Your task to perform on an android device: change the upload size in google photos Image 0: 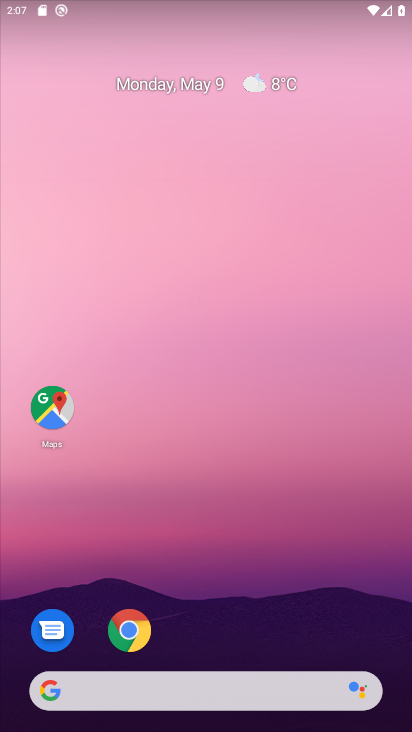
Step 0: click (125, 614)
Your task to perform on an android device: change the upload size in google photos Image 1: 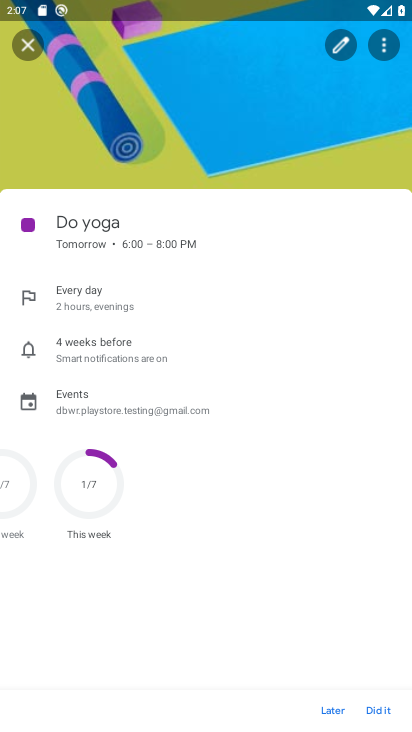
Step 1: press home button
Your task to perform on an android device: change the upload size in google photos Image 2: 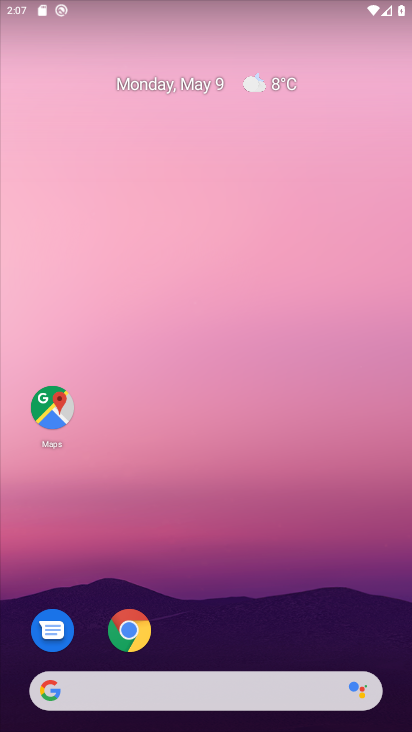
Step 2: drag from (227, 615) to (227, 63)
Your task to perform on an android device: change the upload size in google photos Image 3: 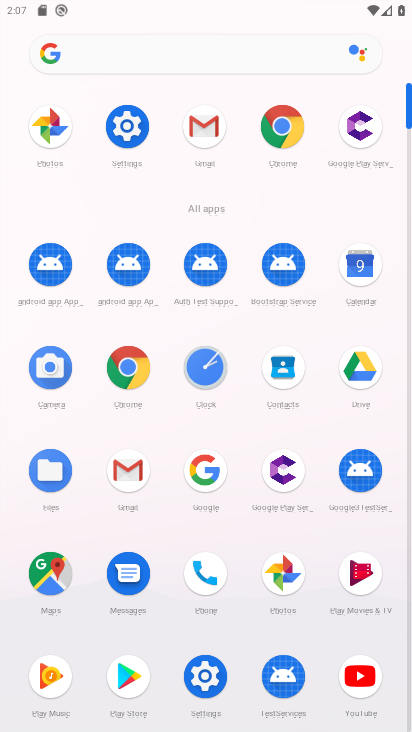
Step 3: click (291, 581)
Your task to perform on an android device: change the upload size in google photos Image 4: 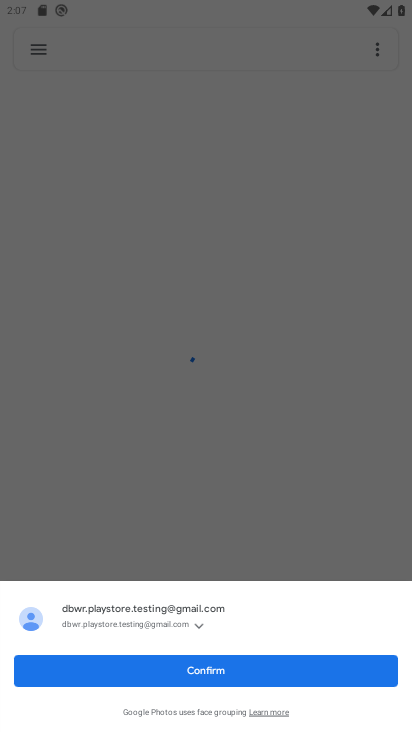
Step 4: click (38, 53)
Your task to perform on an android device: change the upload size in google photos Image 5: 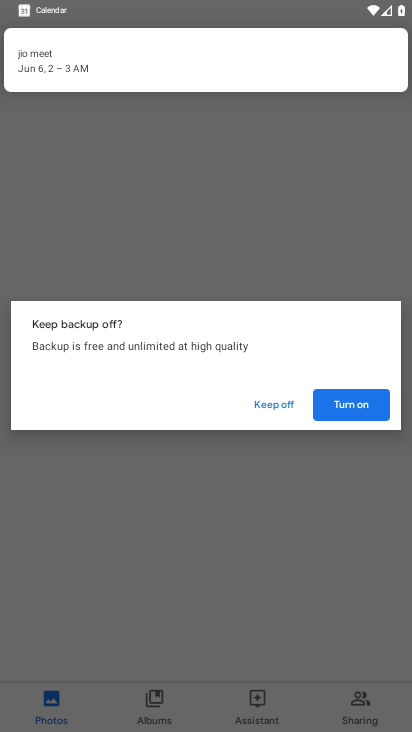
Step 5: click (271, 402)
Your task to perform on an android device: change the upload size in google photos Image 6: 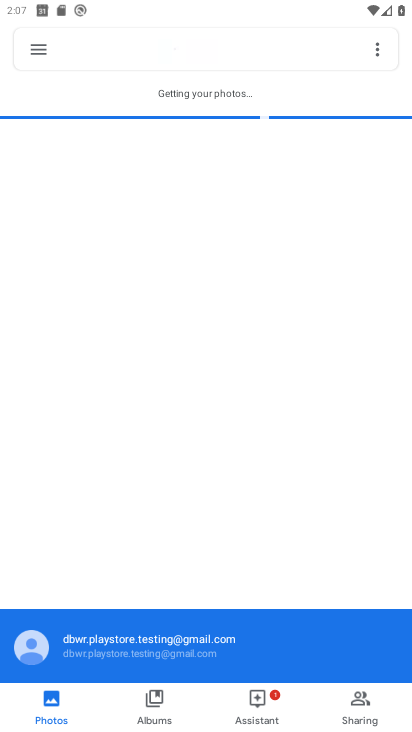
Step 6: click (30, 42)
Your task to perform on an android device: change the upload size in google photos Image 7: 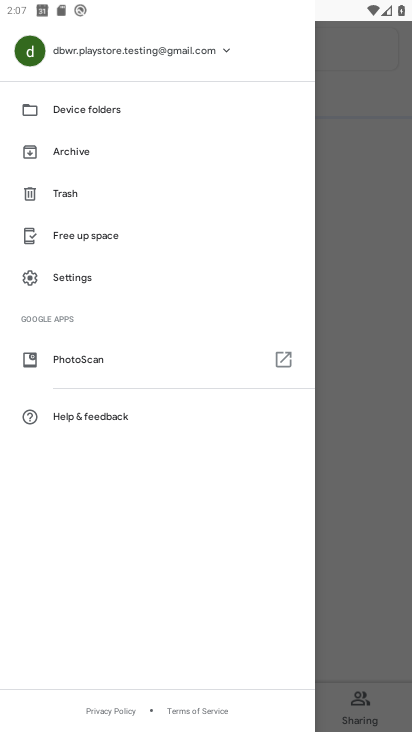
Step 7: click (70, 292)
Your task to perform on an android device: change the upload size in google photos Image 8: 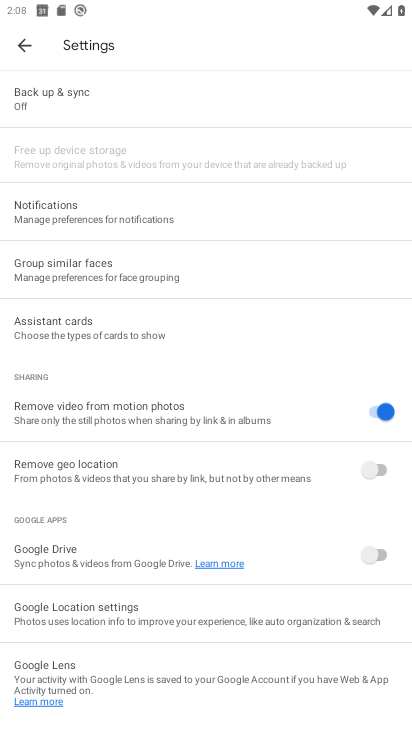
Step 8: click (102, 109)
Your task to perform on an android device: change the upload size in google photos Image 9: 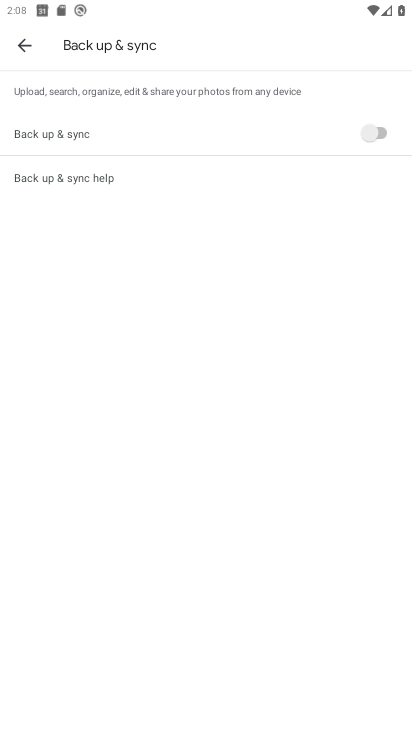
Step 9: click (321, 131)
Your task to perform on an android device: change the upload size in google photos Image 10: 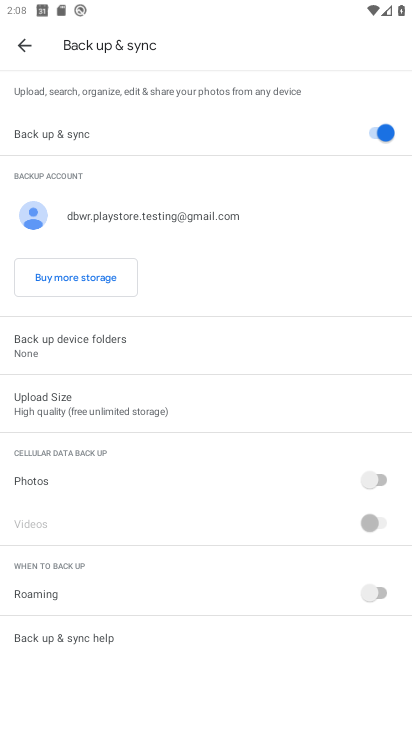
Step 10: click (147, 400)
Your task to perform on an android device: change the upload size in google photos Image 11: 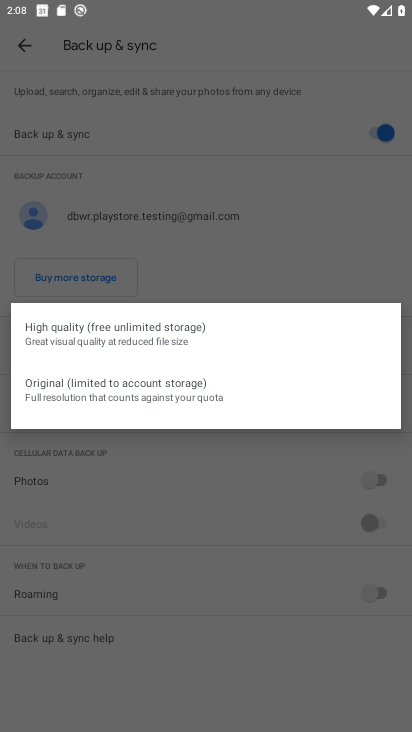
Step 11: click (147, 400)
Your task to perform on an android device: change the upload size in google photos Image 12: 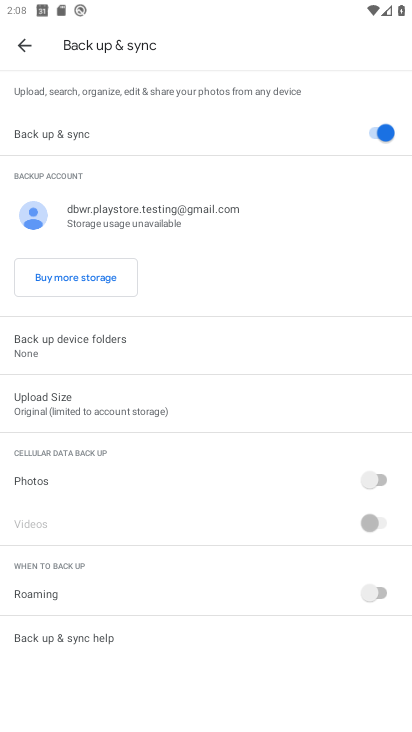
Step 12: task complete